Your task to perform on an android device: Open Maps and search for coffee Image 0: 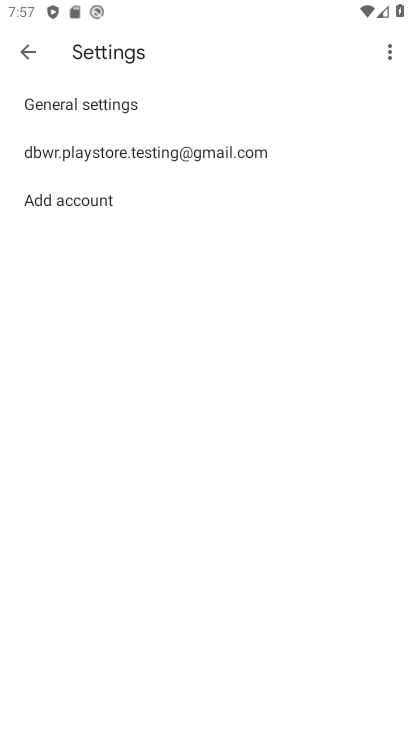
Step 0: press home button
Your task to perform on an android device: Open Maps and search for coffee Image 1: 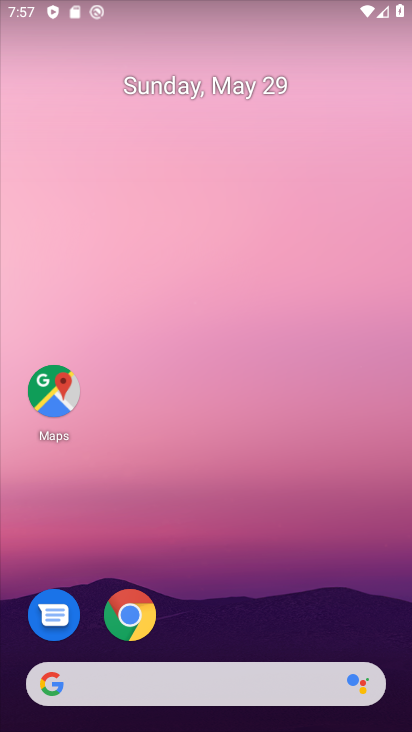
Step 1: click (41, 388)
Your task to perform on an android device: Open Maps and search for coffee Image 2: 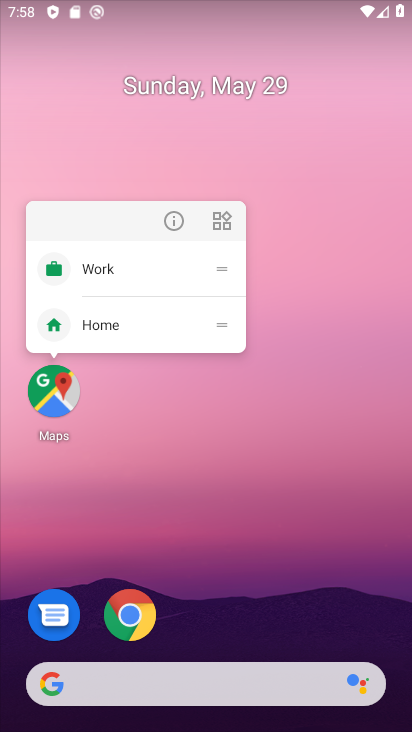
Step 2: click (45, 395)
Your task to perform on an android device: Open Maps and search for coffee Image 3: 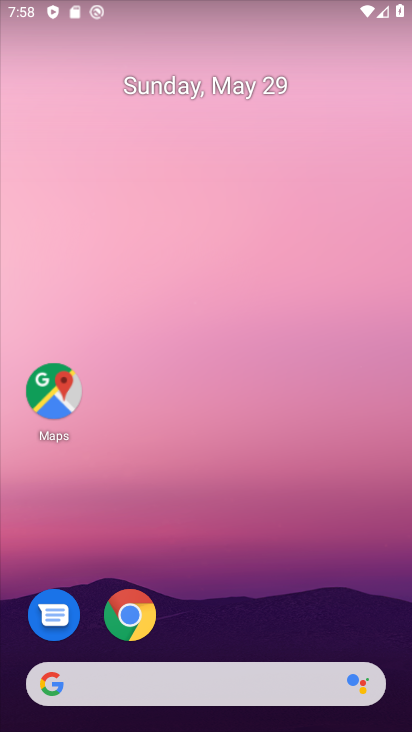
Step 3: click (45, 395)
Your task to perform on an android device: Open Maps and search for coffee Image 4: 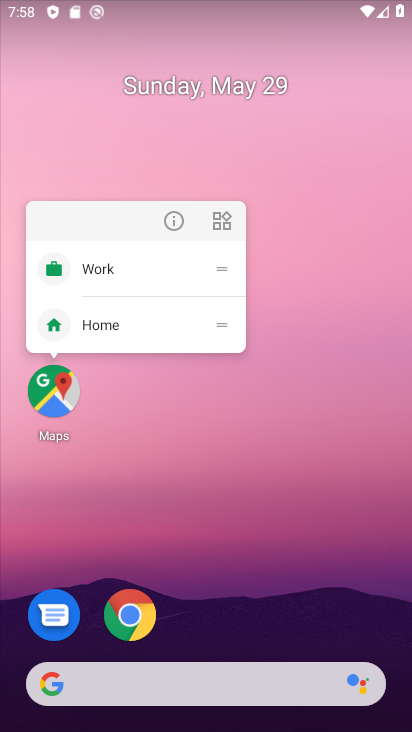
Step 4: click (45, 395)
Your task to perform on an android device: Open Maps and search for coffee Image 5: 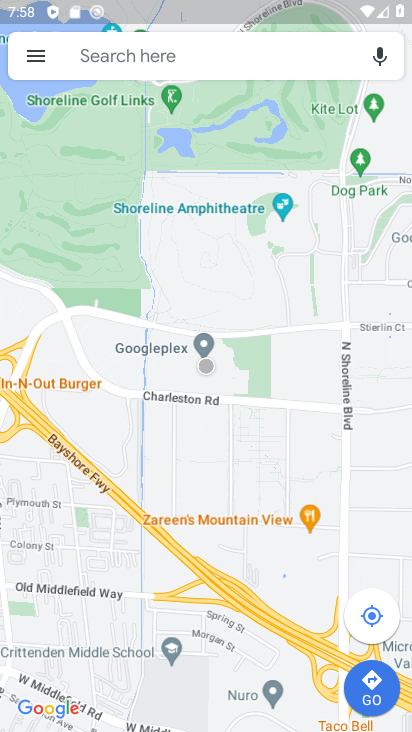
Step 5: type " coffee"
Your task to perform on an android device: Open Maps and search for coffee Image 6: 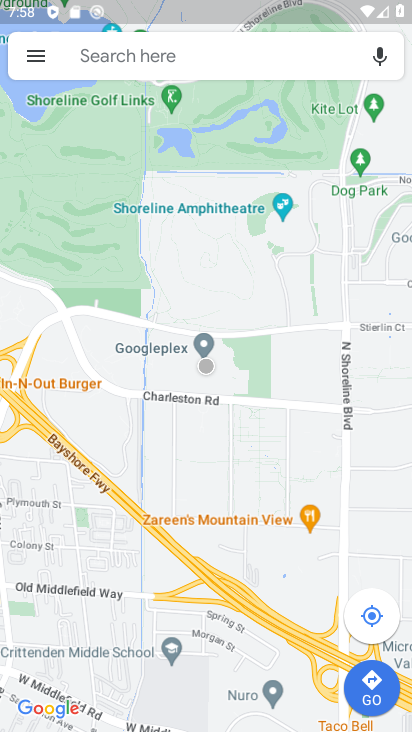
Step 6: click (129, 58)
Your task to perform on an android device: Open Maps and search for coffee Image 7: 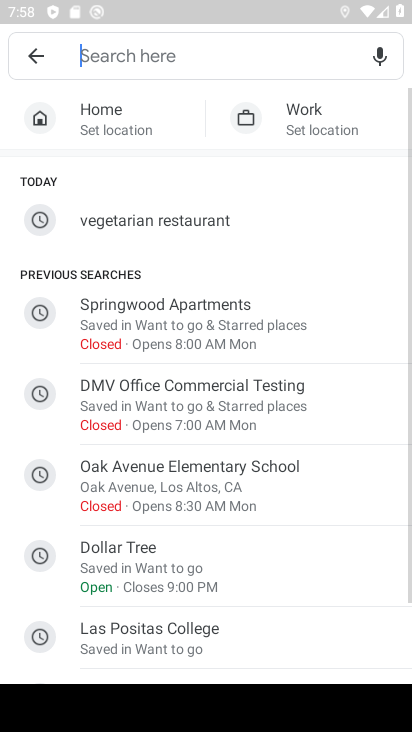
Step 7: click (169, 57)
Your task to perform on an android device: Open Maps and search for coffee Image 8: 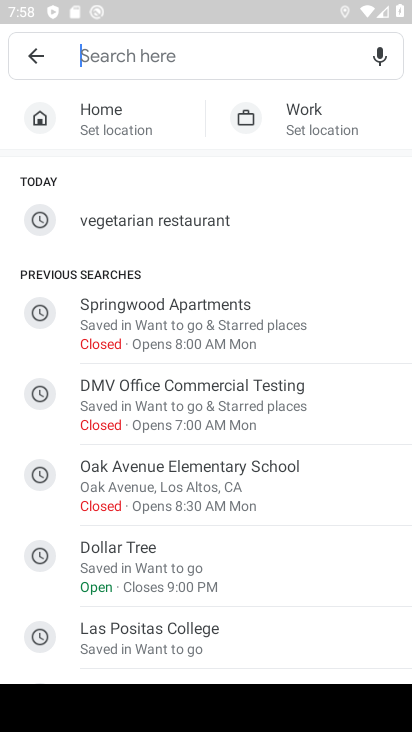
Step 8: click (169, 56)
Your task to perform on an android device: Open Maps and search for coffee Image 9: 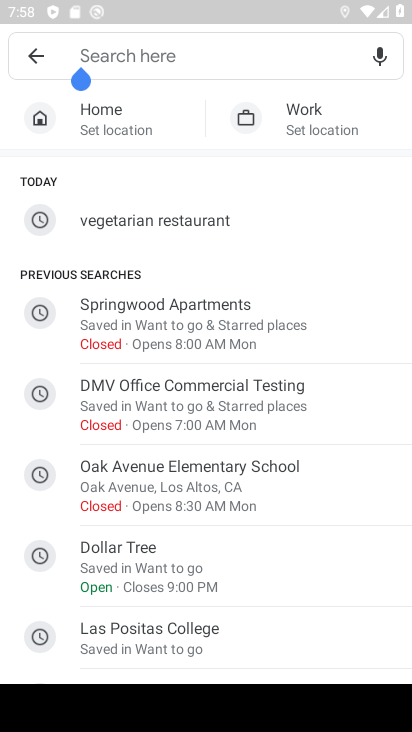
Step 9: click (144, 53)
Your task to perform on an android device: Open Maps and search for coffee Image 10: 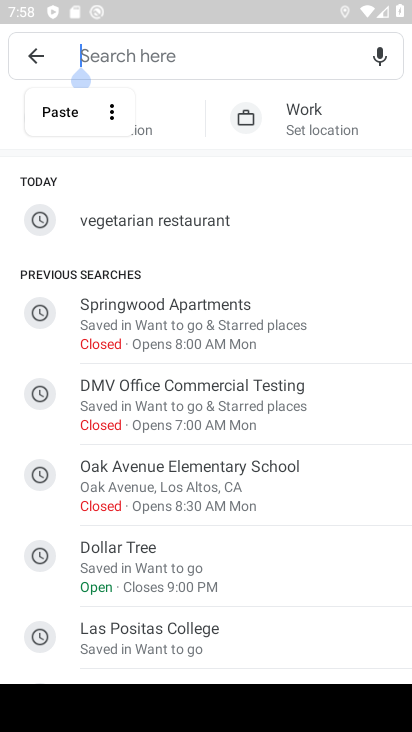
Step 10: click (144, 53)
Your task to perform on an android device: Open Maps and search for coffee Image 11: 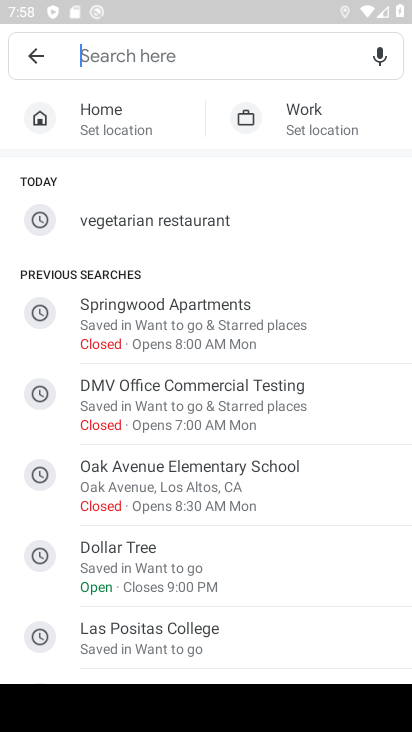
Step 11: type " coffee"
Your task to perform on an android device: Open Maps and search for coffee Image 12: 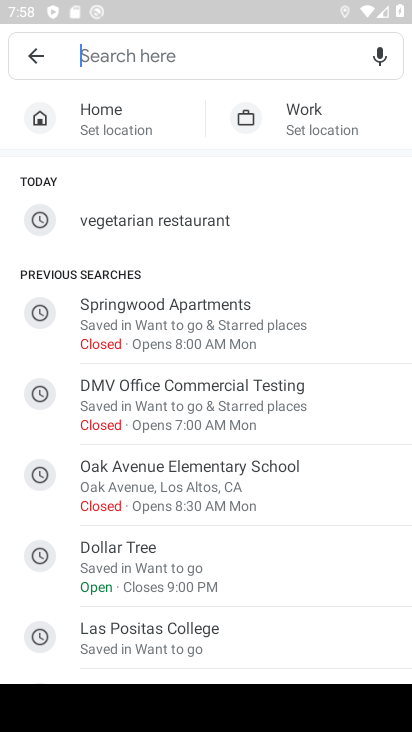
Step 12: click (160, 53)
Your task to perform on an android device: Open Maps and search for coffee Image 13: 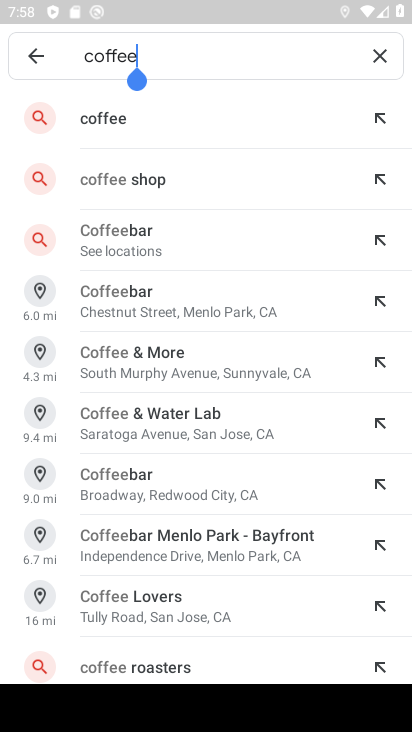
Step 13: click (121, 121)
Your task to perform on an android device: Open Maps and search for coffee Image 14: 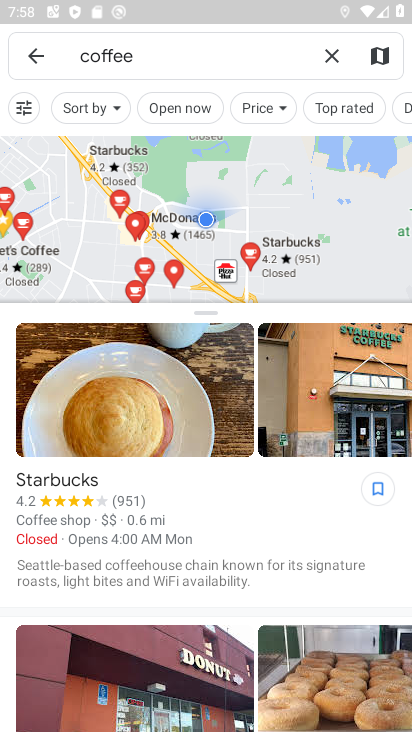
Step 14: task complete